Your task to perform on an android device: toggle translation in the chrome app Image 0: 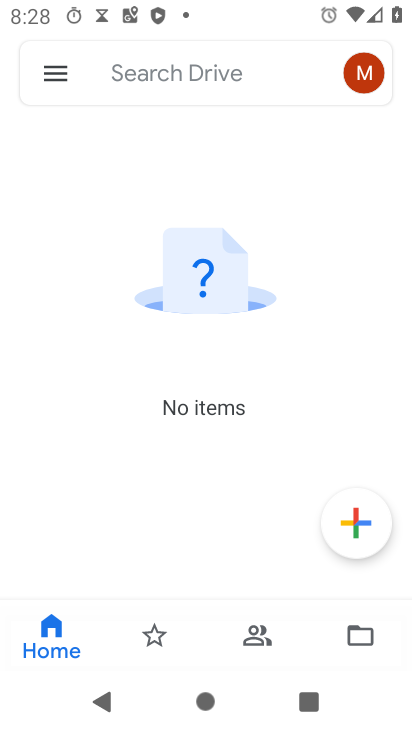
Step 0: press home button
Your task to perform on an android device: toggle translation in the chrome app Image 1: 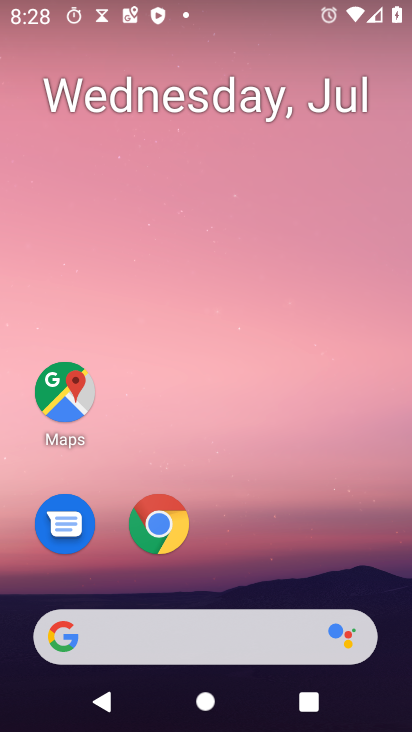
Step 1: click (162, 522)
Your task to perform on an android device: toggle translation in the chrome app Image 2: 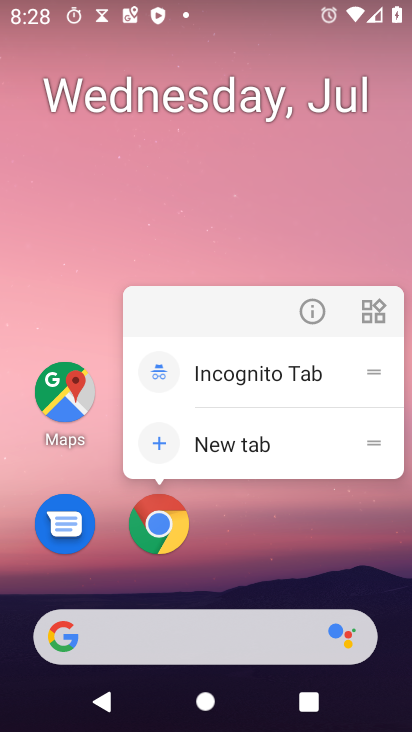
Step 2: click (166, 533)
Your task to perform on an android device: toggle translation in the chrome app Image 3: 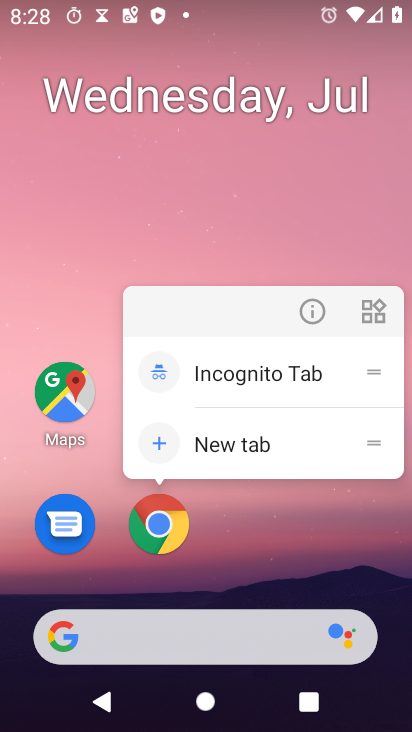
Step 3: click (158, 523)
Your task to perform on an android device: toggle translation in the chrome app Image 4: 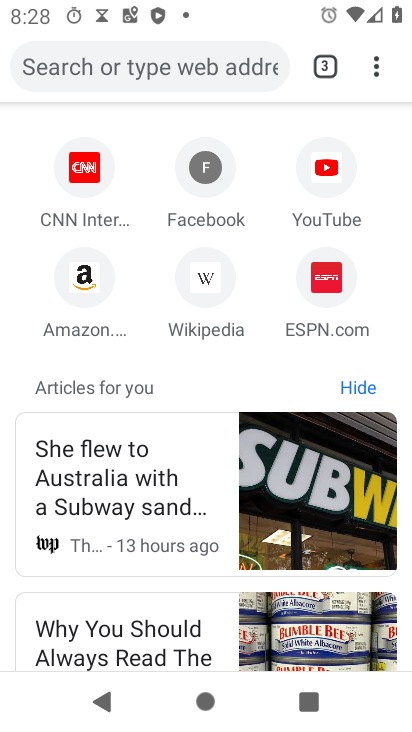
Step 4: drag from (379, 66) to (230, 559)
Your task to perform on an android device: toggle translation in the chrome app Image 5: 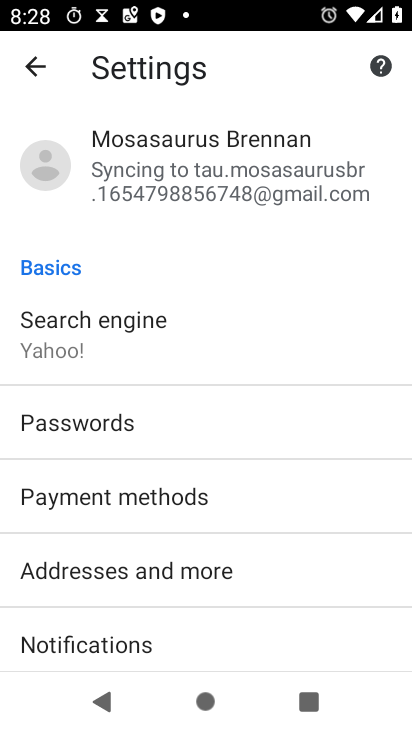
Step 5: drag from (209, 612) to (308, 208)
Your task to perform on an android device: toggle translation in the chrome app Image 6: 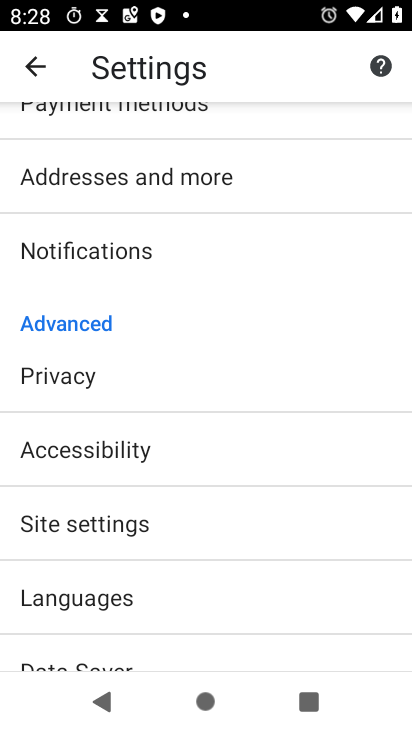
Step 6: click (93, 607)
Your task to perform on an android device: toggle translation in the chrome app Image 7: 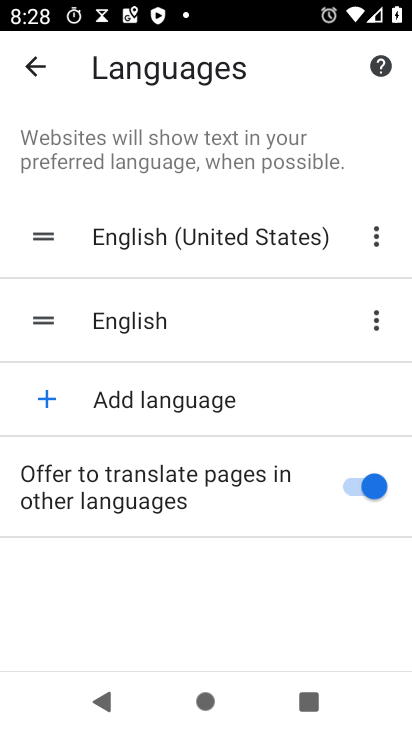
Step 7: click (354, 485)
Your task to perform on an android device: toggle translation in the chrome app Image 8: 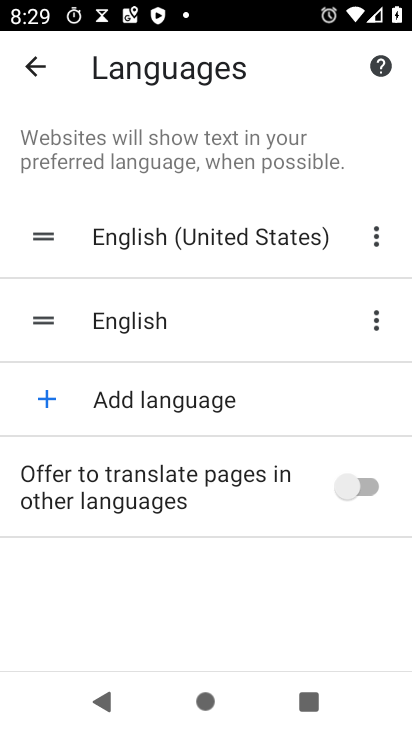
Step 8: task complete